Your task to perform on an android device: Open Google Chrome and click the shortcut for Amazon.com Image 0: 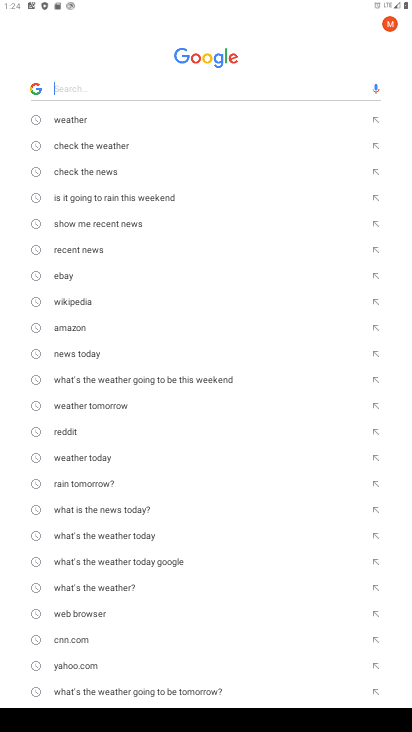
Step 0: press home button
Your task to perform on an android device: Open Google Chrome and click the shortcut for Amazon.com Image 1: 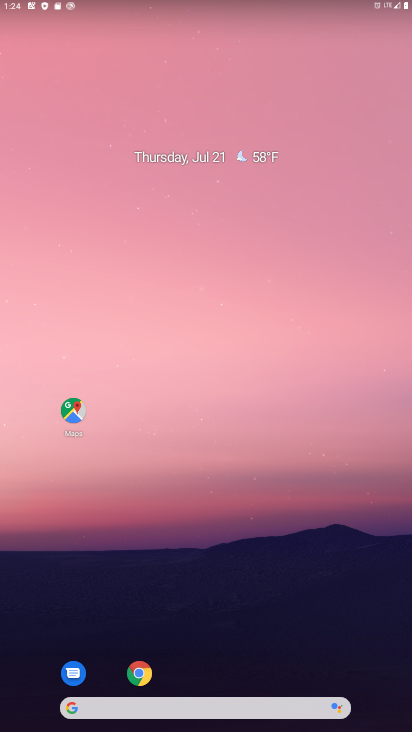
Step 1: drag from (198, 694) to (198, 257)
Your task to perform on an android device: Open Google Chrome and click the shortcut for Amazon.com Image 2: 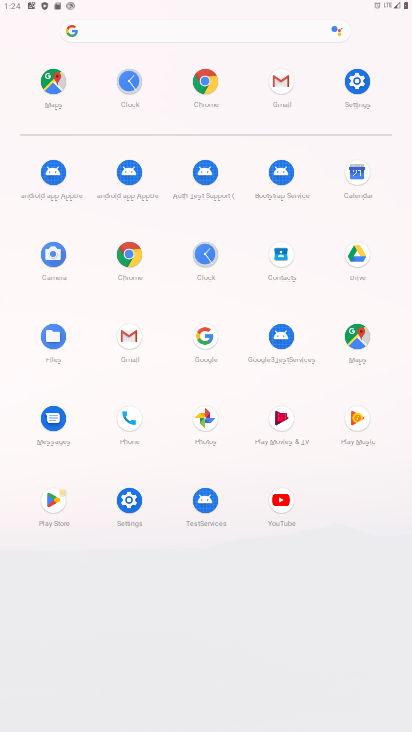
Step 2: click (125, 253)
Your task to perform on an android device: Open Google Chrome and click the shortcut for Amazon.com Image 3: 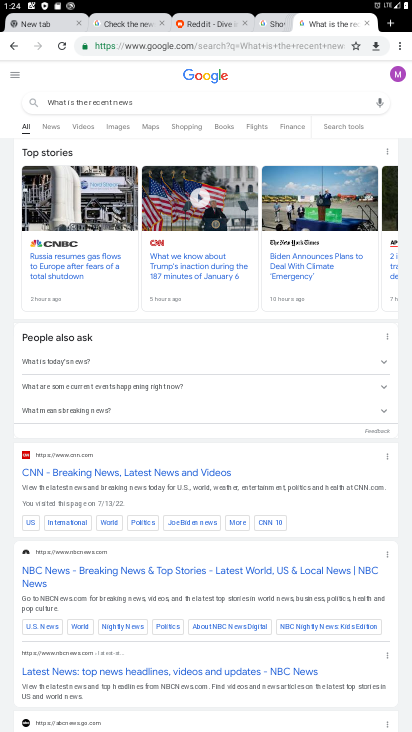
Step 3: click (372, 23)
Your task to perform on an android device: Open Google Chrome and click the shortcut for Amazon.com Image 4: 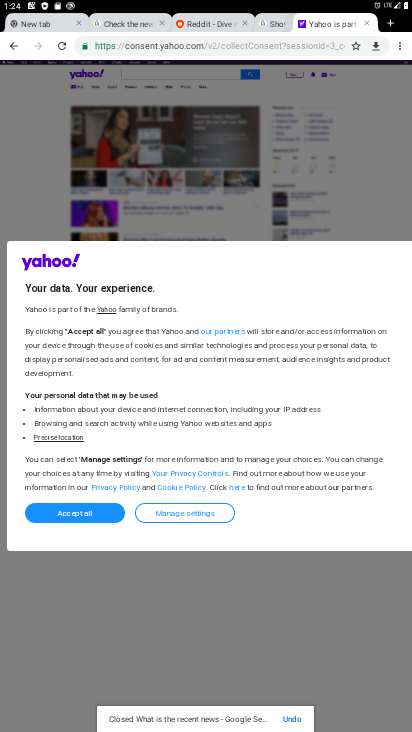
Step 4: click (394, 21)
Your task to perform on an android device: Open Google Chrome and click the shortcut for Amazon.com Image 5: 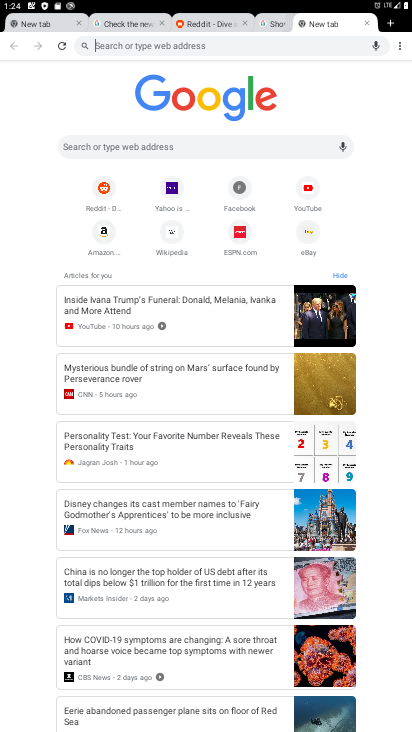
Step 5: click (104, 228)
Your task to perform on an android device: Open Google Chrome and click the shortcut for Amazon.com Image 6: 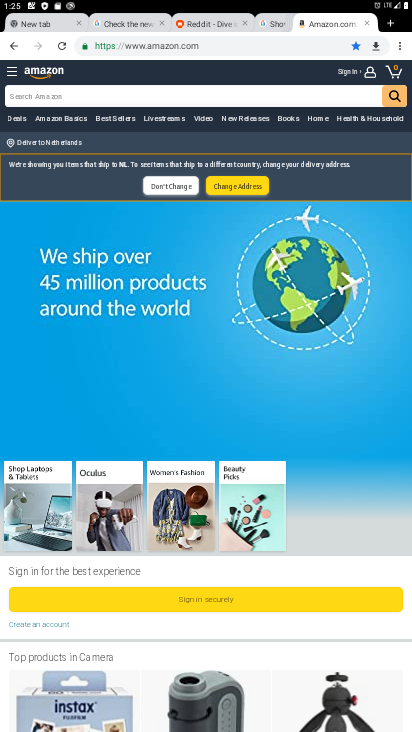
Step 6: task complete